Your task to perform on an android device: Go to Reddit.com Image 0: 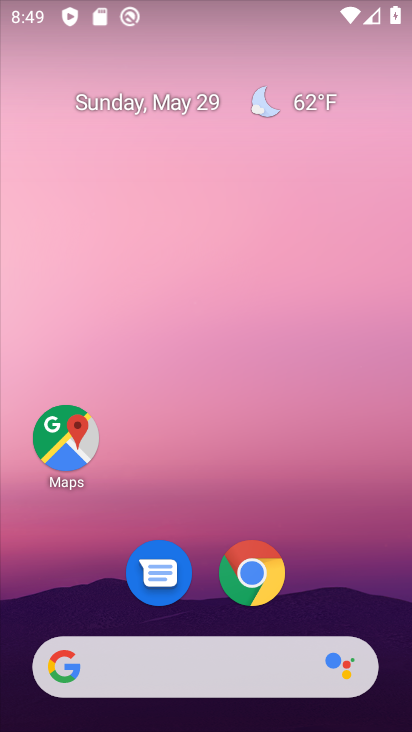
Step 0: press home button
Your task to perform on an android device: Go to Reddit.com Image 1: 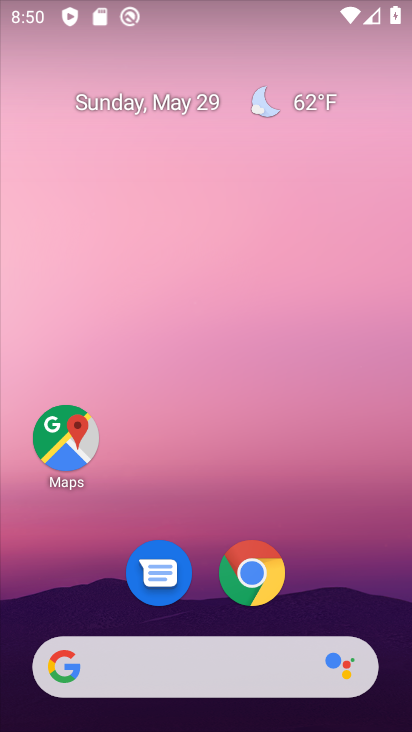
Step 1: click (60, 669)
Your task to perform on an android device: Go to Reddit.com Image 2: 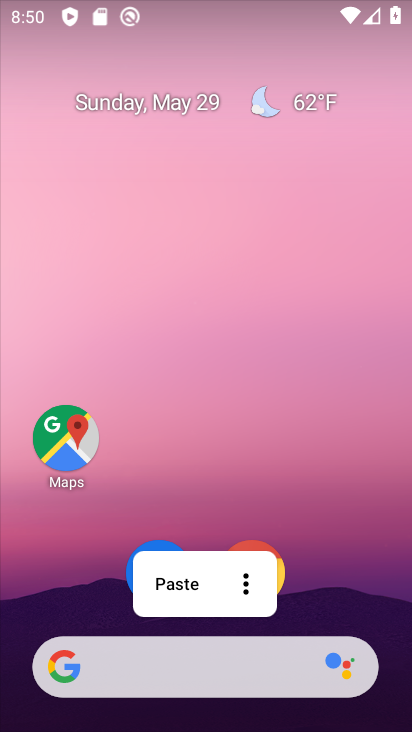
Step 2: click (63, 671)
Your task to perform on an android device: Go to Reddit.com Image 3: 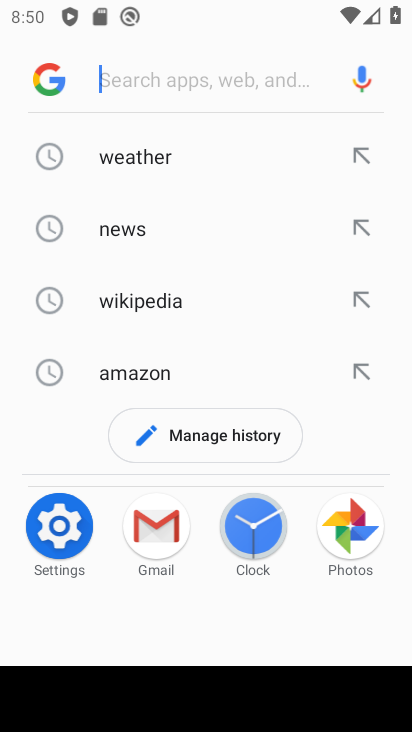
Step 3: type "Reddit.com"
Your task to perform on an android device: Go to Reddit.com Image 4: 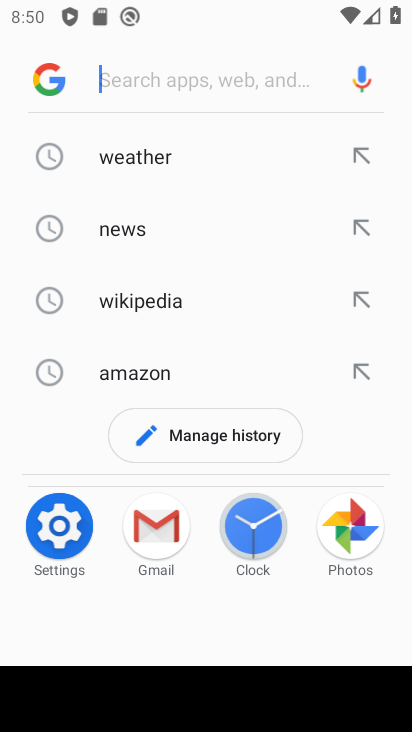
Step 4: click (158, 84)
Your task to perform on an android device: Go to Reddit.com Image 5: 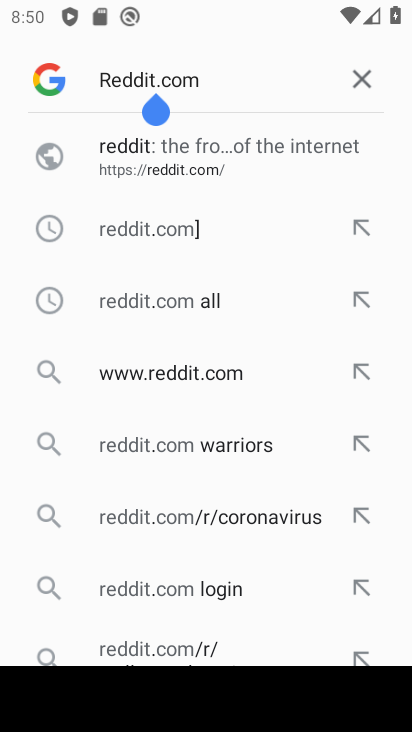
Step 5: click (131, 151)
Your task to perform on an android device: Go to Reddit.com Image 6: 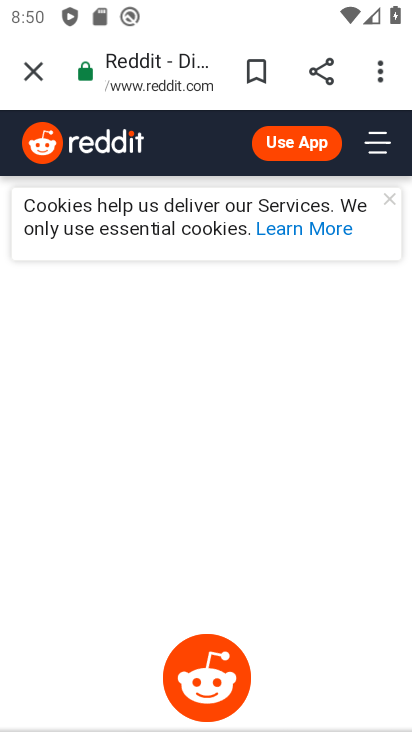
Step 6: task complete